Your task to perform on an android device: Set an alarm for 7am Image 0: 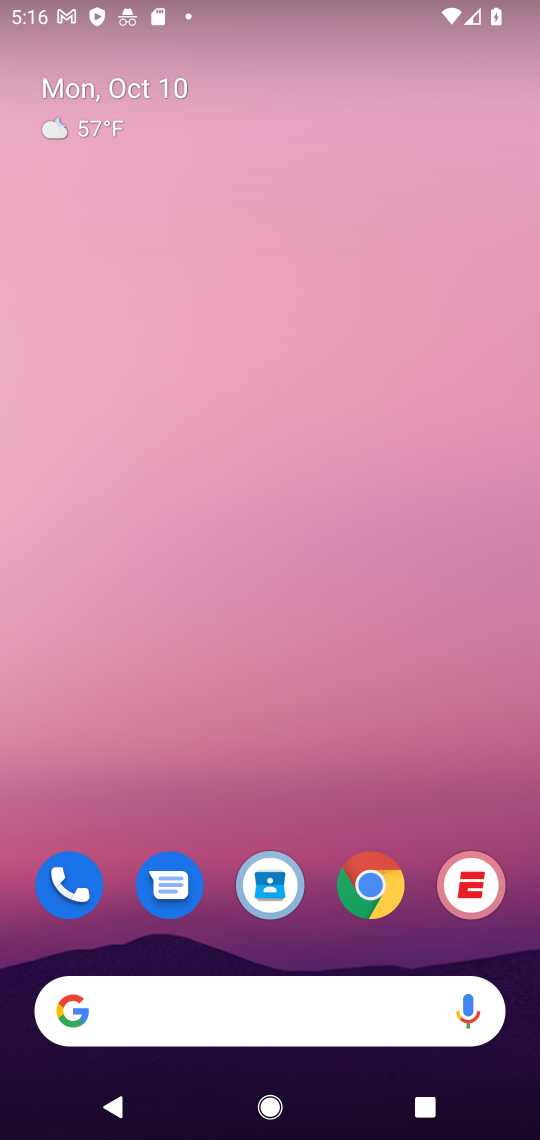
Step 0: drag from (230, 781) to (470, 13)
Your task to perform on an android device: Set an alarm for 7am Image 1: 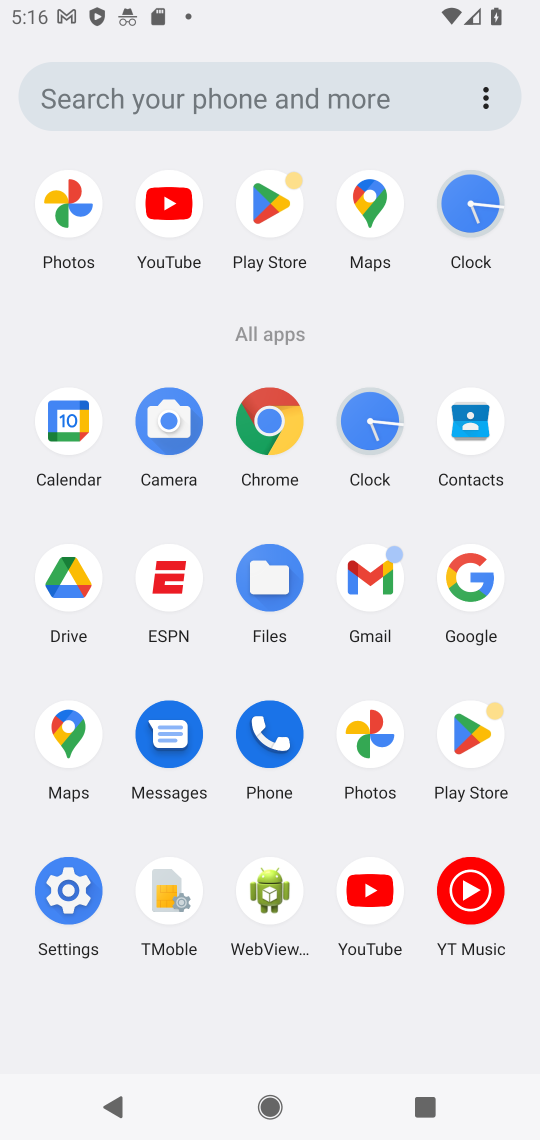
Step 1: click (477, 190)
Your task to perform on an android device: Set an alarm for 7am Image 2: 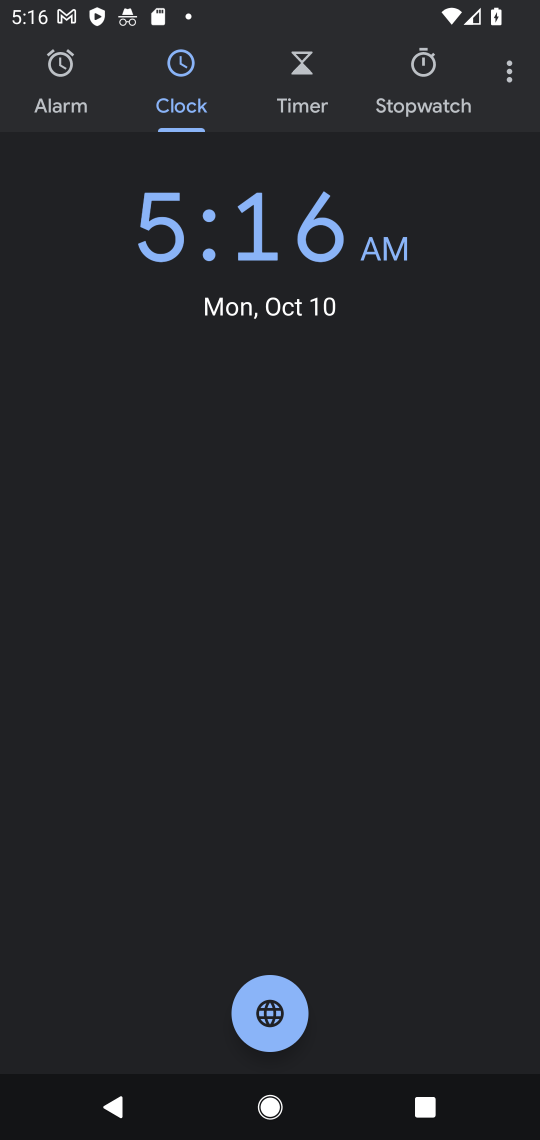
Step 2: click (71, 67)
Your task to perform on an android device: Set an alarm for 7am Image 3: 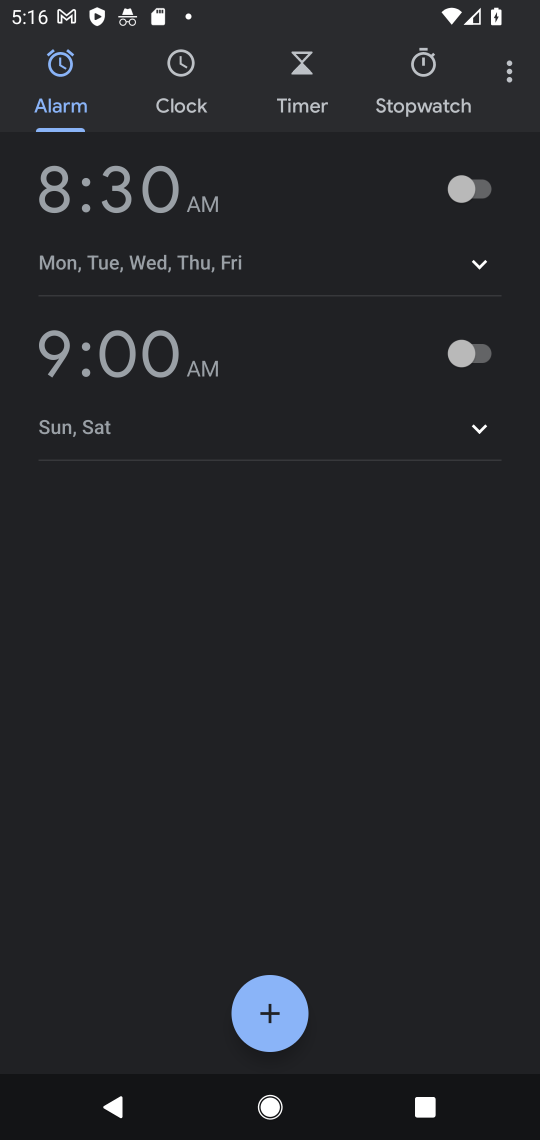
Step 3: click (281, 1025)
Your task to perform on an android device: Set an alarm for 7am Image 4: 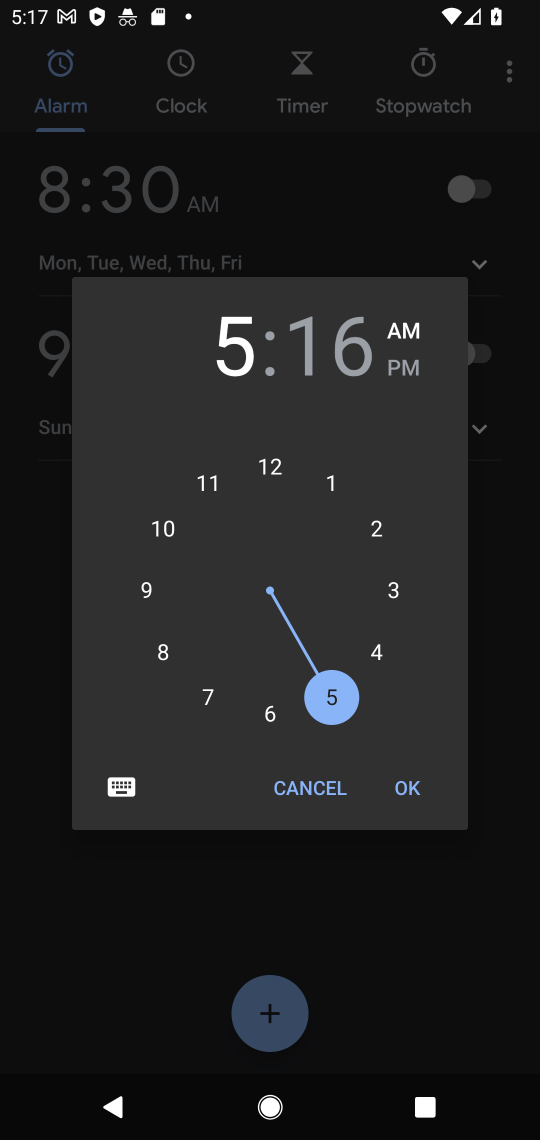
Step 4: click (199, 699)
Your task to perform on an android device: Set an alarm for 7am Image 5: 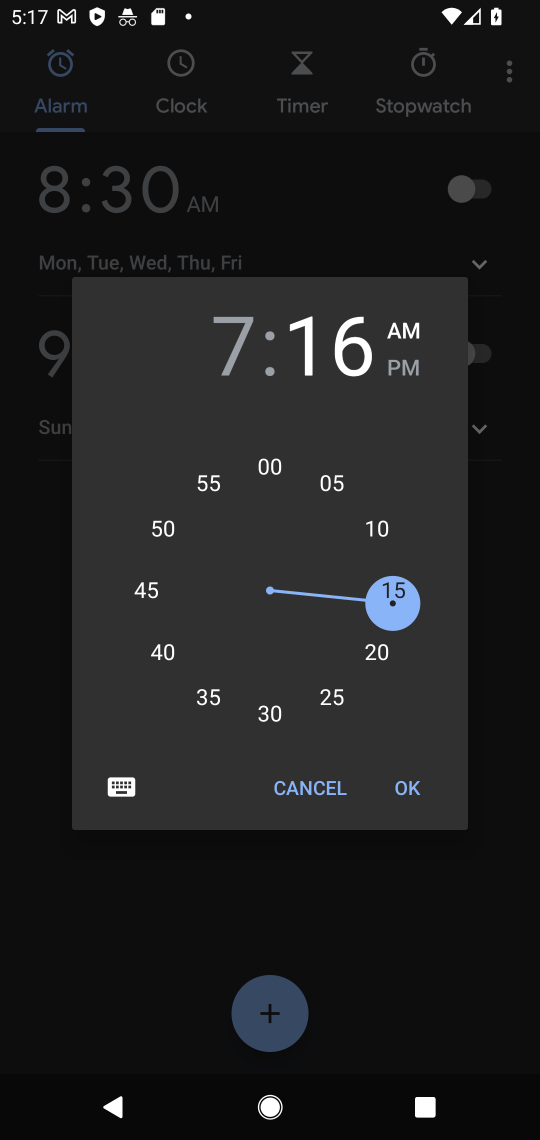
Step 5: click (277, 471)
Your task to perform on an android device: Set an alarm for 7am Image 6: 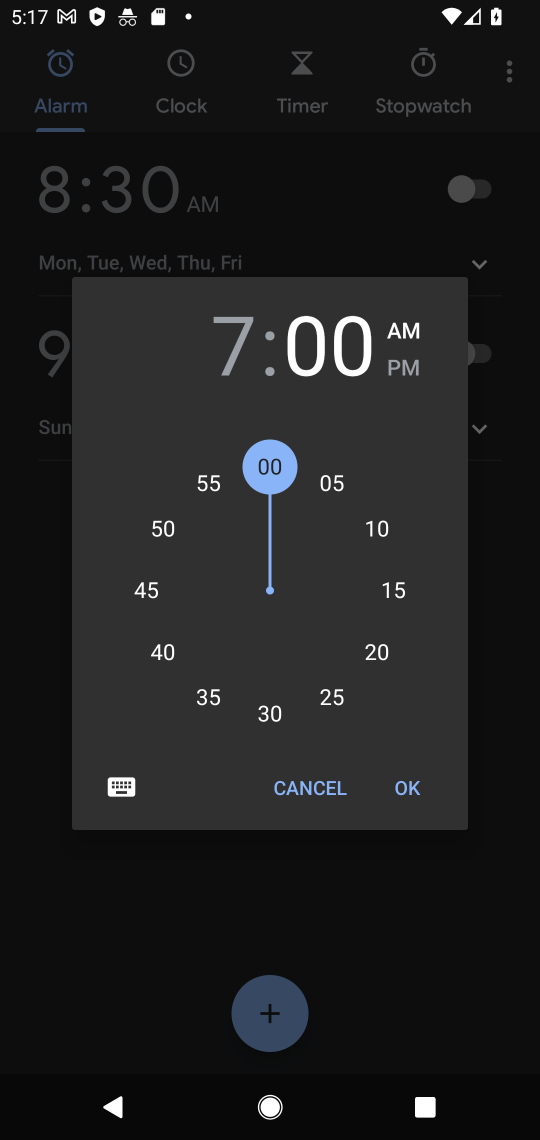
Step 6: click (405, 799)
Your task to perform on an android device: Set an alarm for 7am Image 7: 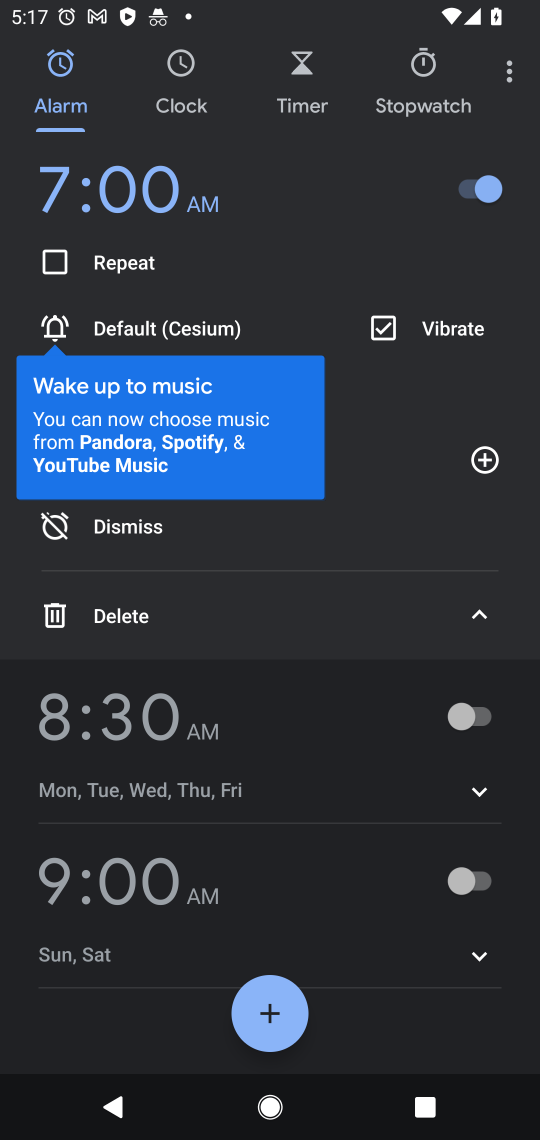
Step 7: task complete